Your task to perform on an android device: What's the weather going to be this weekend? Image 0: 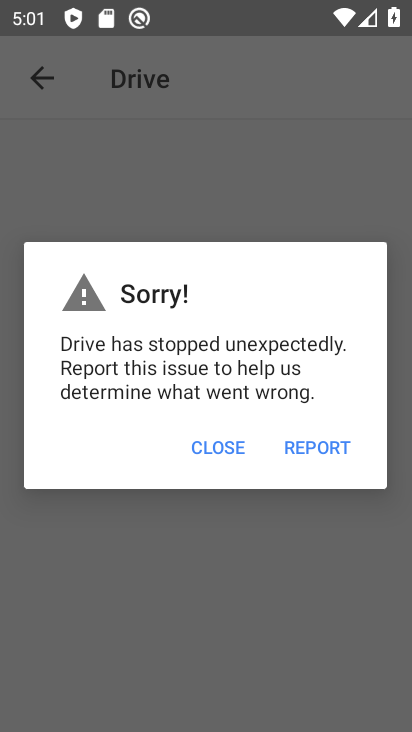
Step 0: press home button
Your task to perform on an android device: What's the weather going to be this weekend? Image 1: 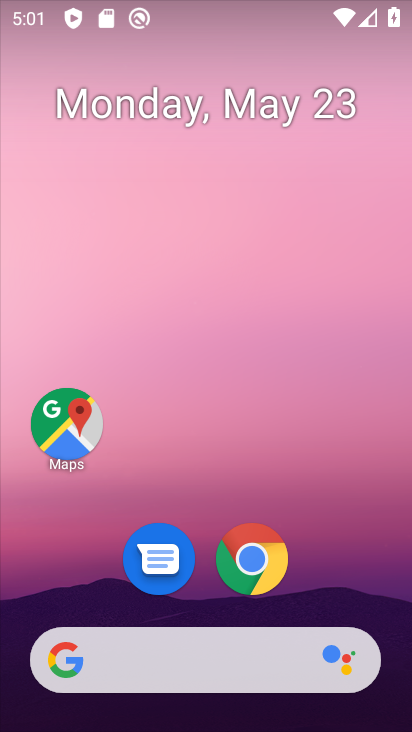
Step 1: drag from (331, 498) to (337, 18)
Your task to perform on an android device: What's the weather going to be this weekend? Image 2: 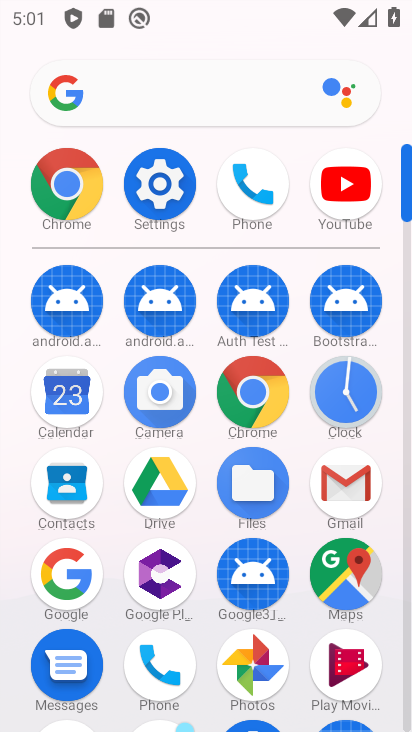
Step 2: press home button
Your task to perform on an android device: What's the weather going to be this weekend? Image 3: 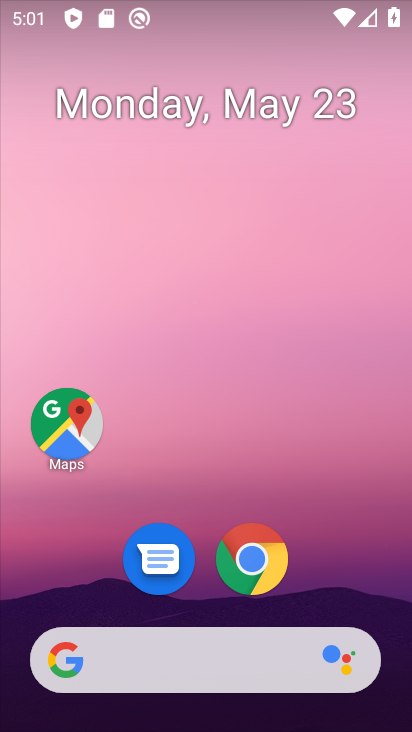
Step 3: drag from (91, 214) to (409, 246)
Your task to perform on an android device: What's the weather going to be this weekend? Image 4: 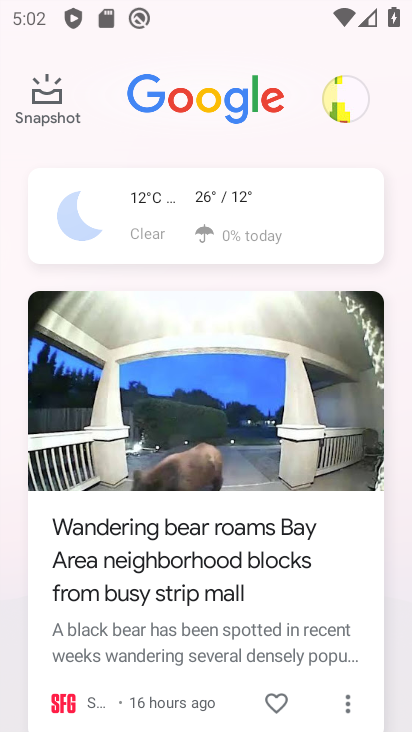
Step 4: click (250, 244)
Your task to perform on an android device: What's the weather going to be this weekend? Image 5: 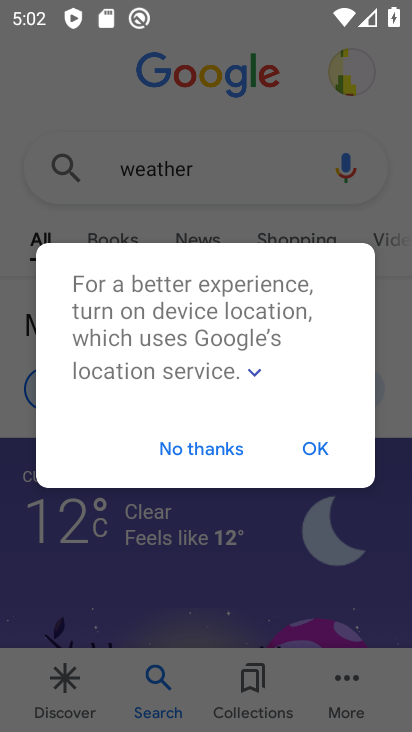
Step 5: click (209, 447)
Your task to perform on an android device: What's the weather going to be this weekend? Image 6: 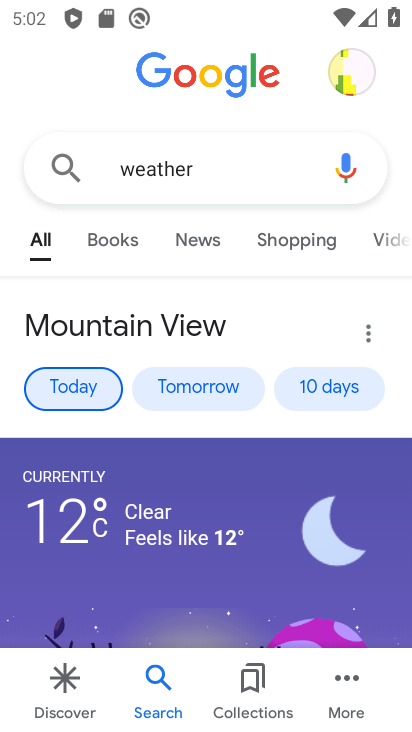
Step 6: click (325, 405)
Your task to perform on an android device: What's the weather going to be this weekend? Image 7: 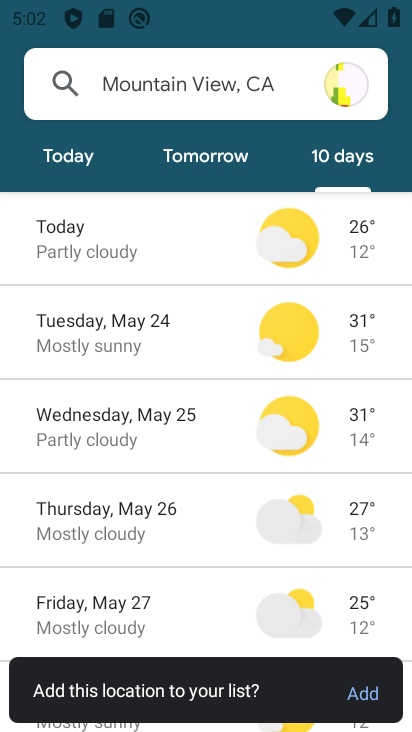
Step 7: task complete